Your task to perform on an android device: set an alarm Image 0: 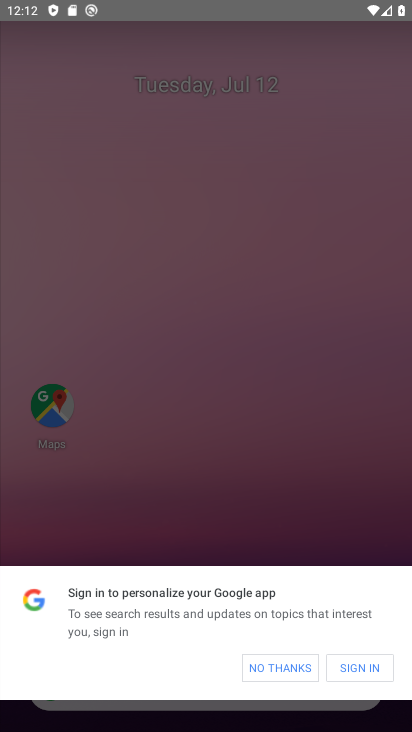
Step 0: press home button
Your task to perform on an android device: set an alarm Image 1: 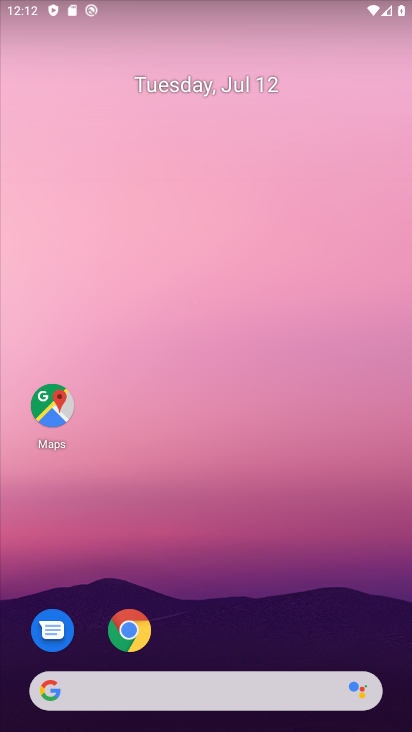
Step 1: drag from (384, 620) to (281, 86)
Your task to perform on an android device: set an alarm Image 2: 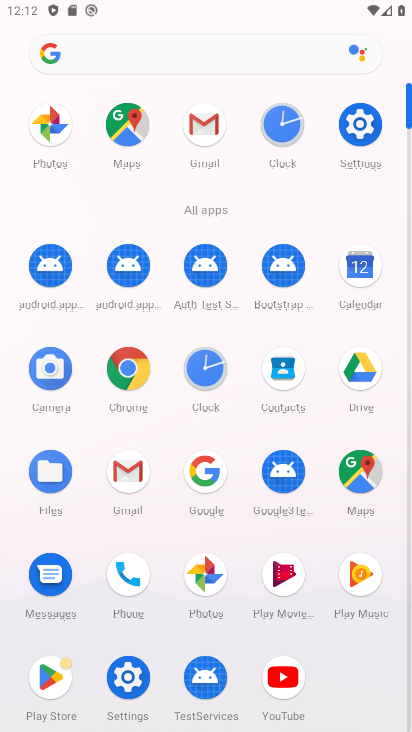
Step 2: click (205, 366)
Your task to perform on an android device: set an alarm Image 3: 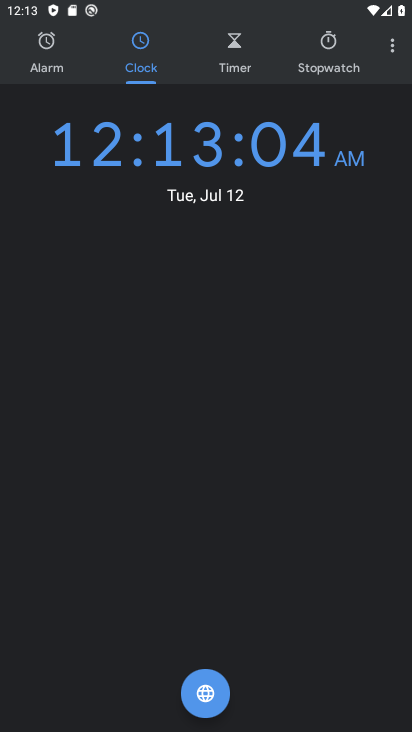
Step 3: click (42, 63)
Your task to perform on an android device: set an alarm Image 4: 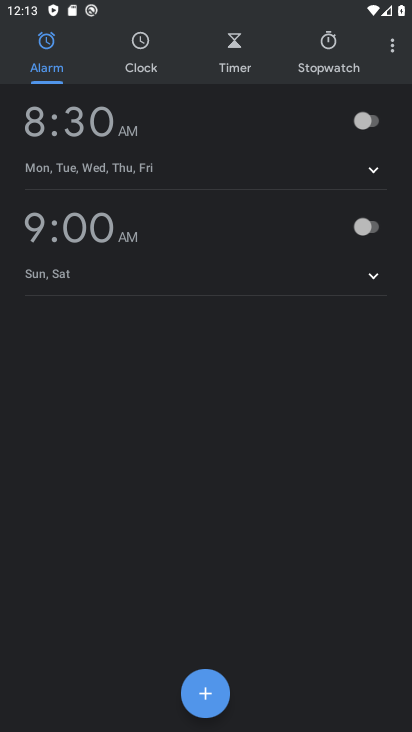
Step 4: click (109, 156)
Your task to perform on an android device: set an alarm Image 5: 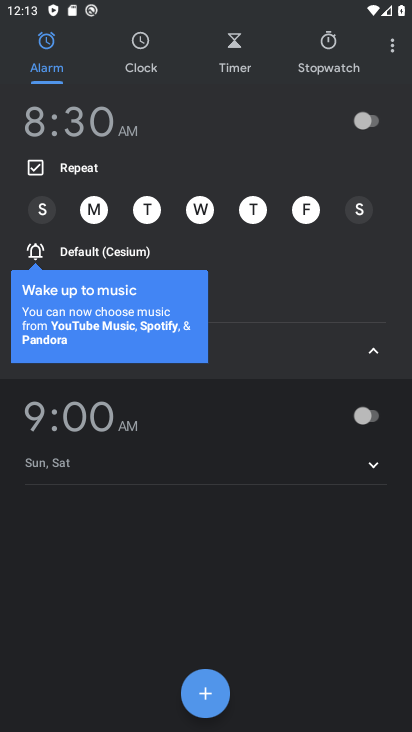
Step 5: click (361, 208)
Your task to perform on an android device: set an alarm Image 6: 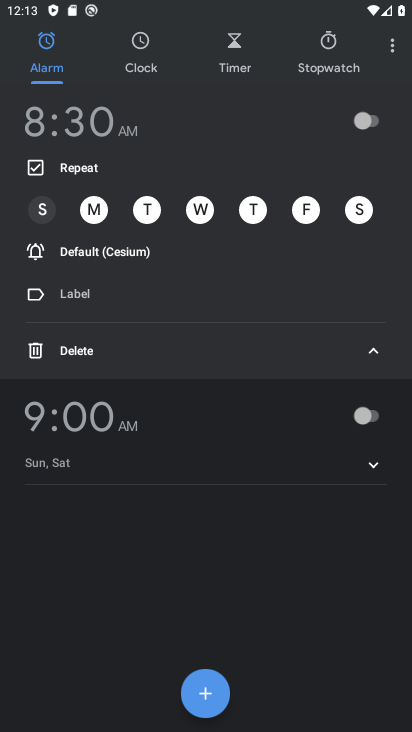
Step 6: click (119, 120)
Your task to perform on an android device: set an alarm Image 7: 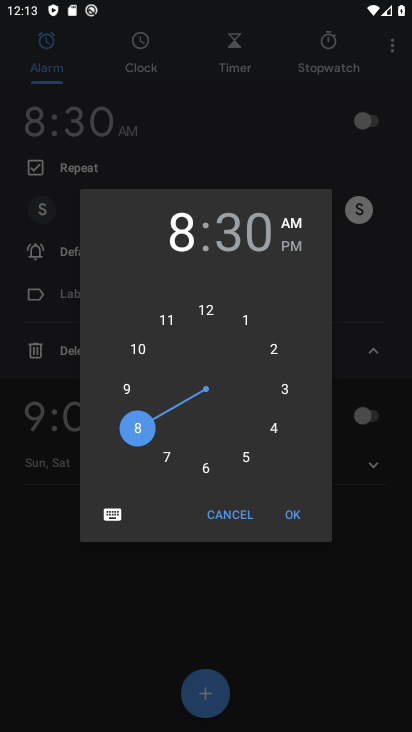
Step 7: click (204, 462)
Your task to perform on an android device: set an alarm Image 8: 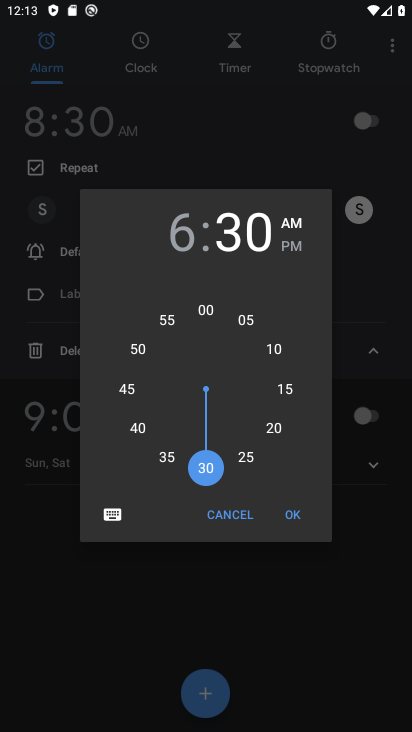
Step 8: click (288, 387)
Your task to perform on an android device: set an alarm Image 9: 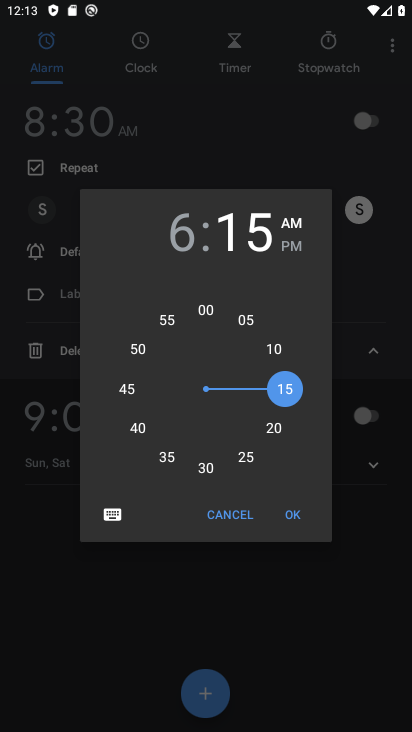
Step 9: click (297, 514)
Your task to perform on an android device: set an alarm Image 10: 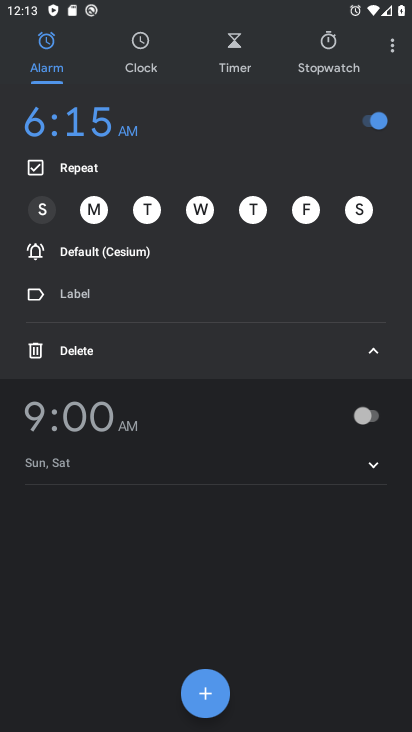
Step 10: click (369, 347)
Your task to perform on an android device: set an alarm Image 11: 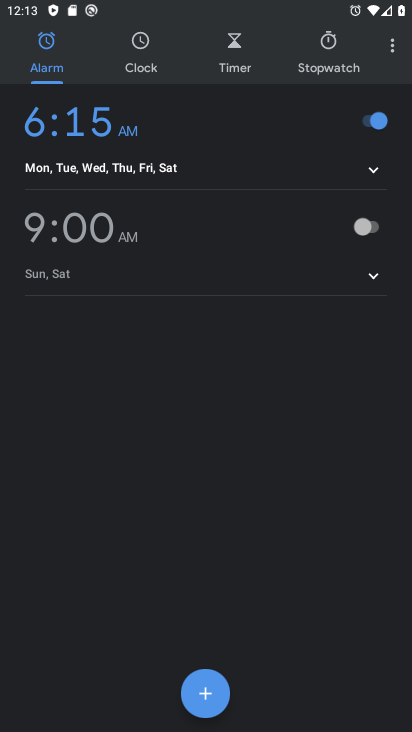
Step 11: task complete